Your task to perform on an android device: Open calendar and show me the second week of next month Image 0: 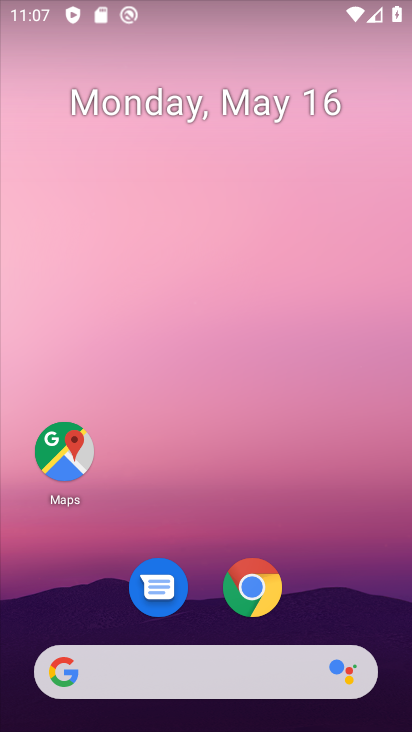
Step 0: drag from (392, 611) to (332, 55)
Your task to perform on an android device: Open calendar and show me the second week of next month Image 1: 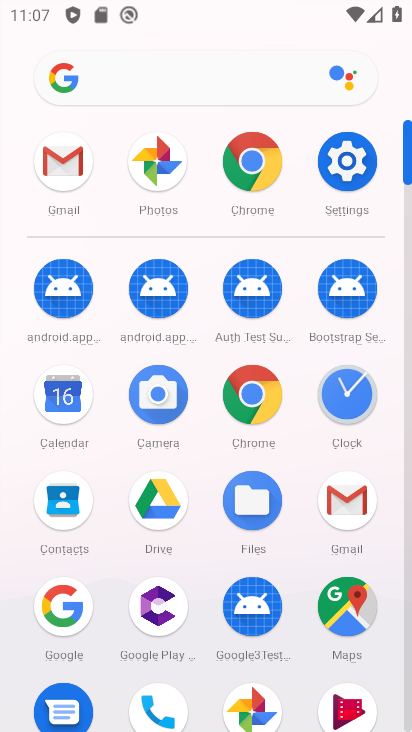
Step 1: click (74, 387)
Your task to perform on an android device: Open calendar and show me the second week of next month Image 2: 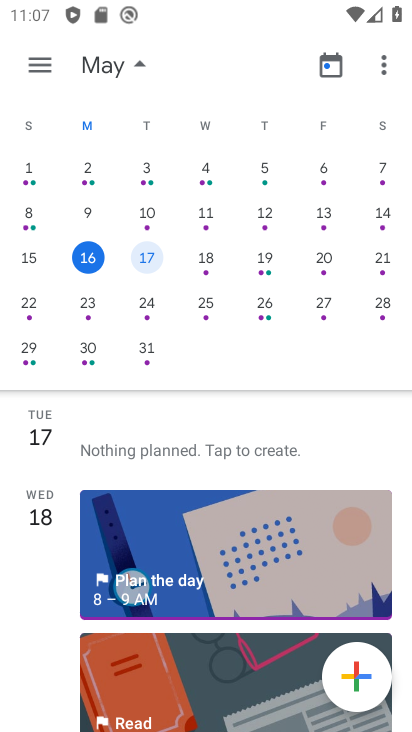
Step 2: drag from (358, 243) to (76, 223)
Your task to perform on an android device: Open calendar and show me the second week of next month Image 3: 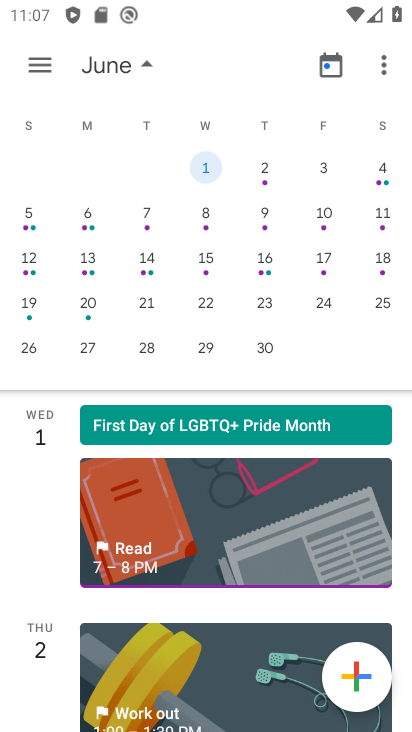
Step 3: click (80, 259)
Your task to perform on an android device: Open calendar and show me the second week of next month Image 4: 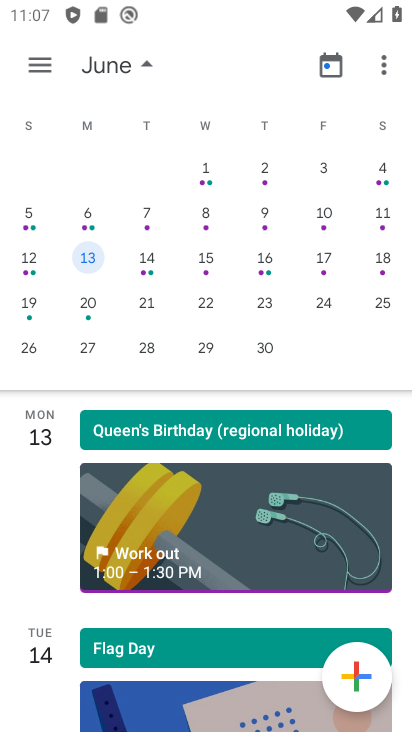
Step 4: task complete